Your task to perform on an android device: Clear all items from cart on bestbuy.com. Search for alienware area 51 on bestbuy.com, select the first entry, and add it to the cart. Image 0: 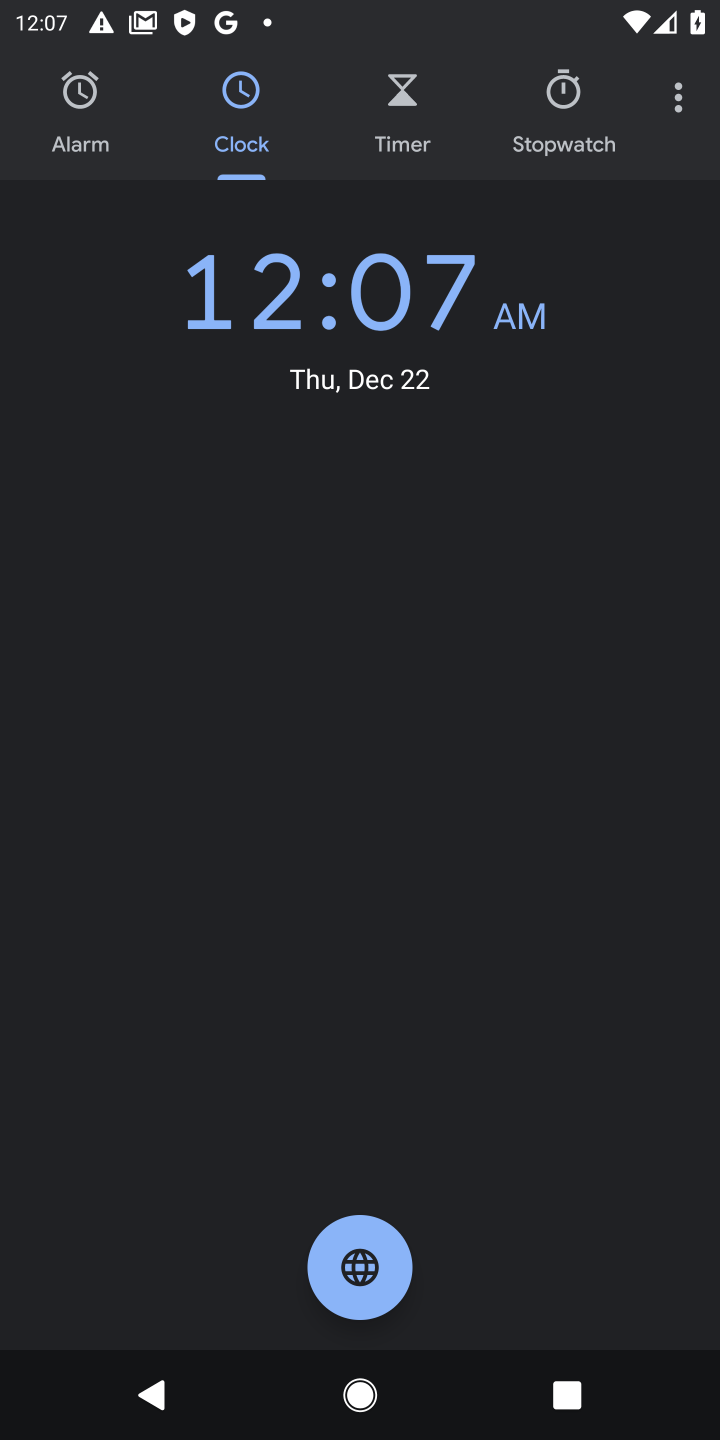
Step 0: press home button
Your task to perform on an android device: Clear all items from cart on bestbuy.com. Search for alienware area 51 on bestbuy.com, select the first entry, and add it to the cart. Image 1: 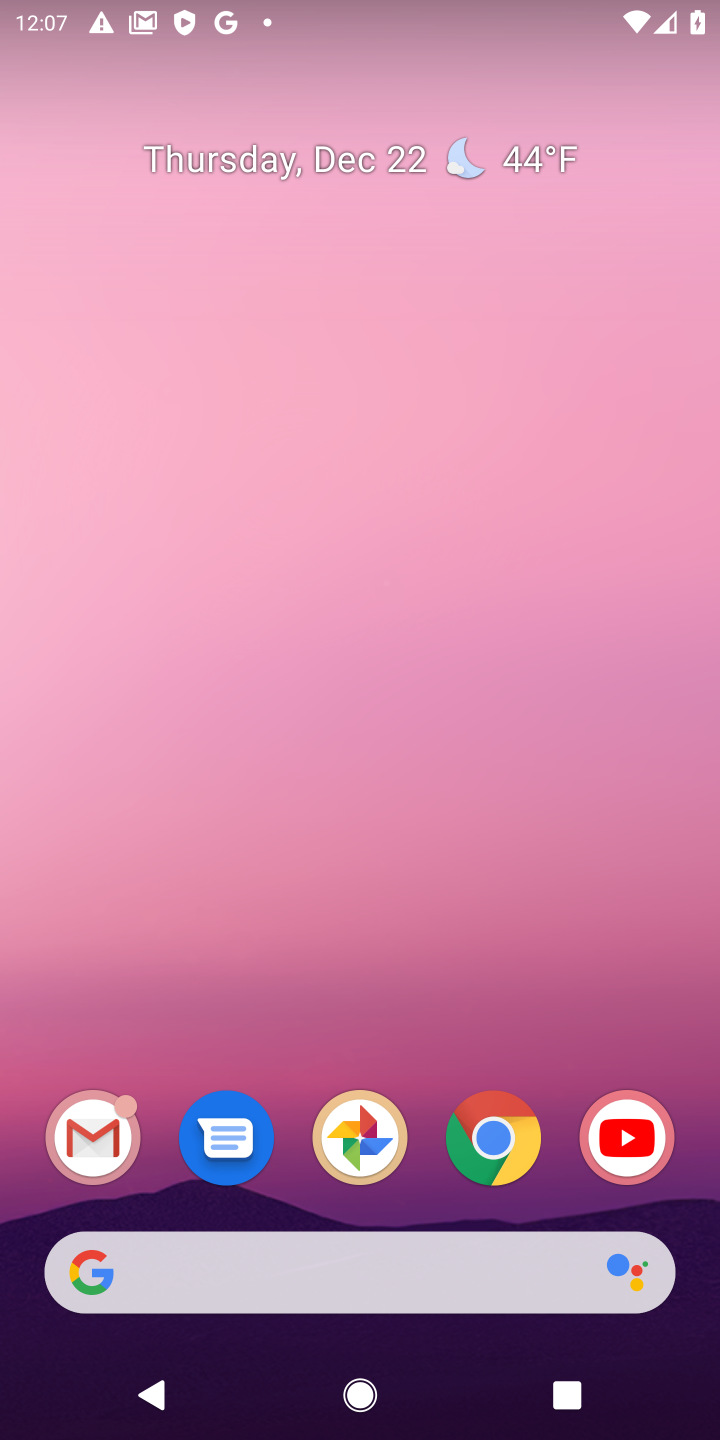
Step 1: click (503, 1141)
Your task to perform on an android device: Clear all items from cart on bestbuy.com. Search for alienware area 51 on bestbuy.com, select the first entry, and add it to the cart. Image 2: 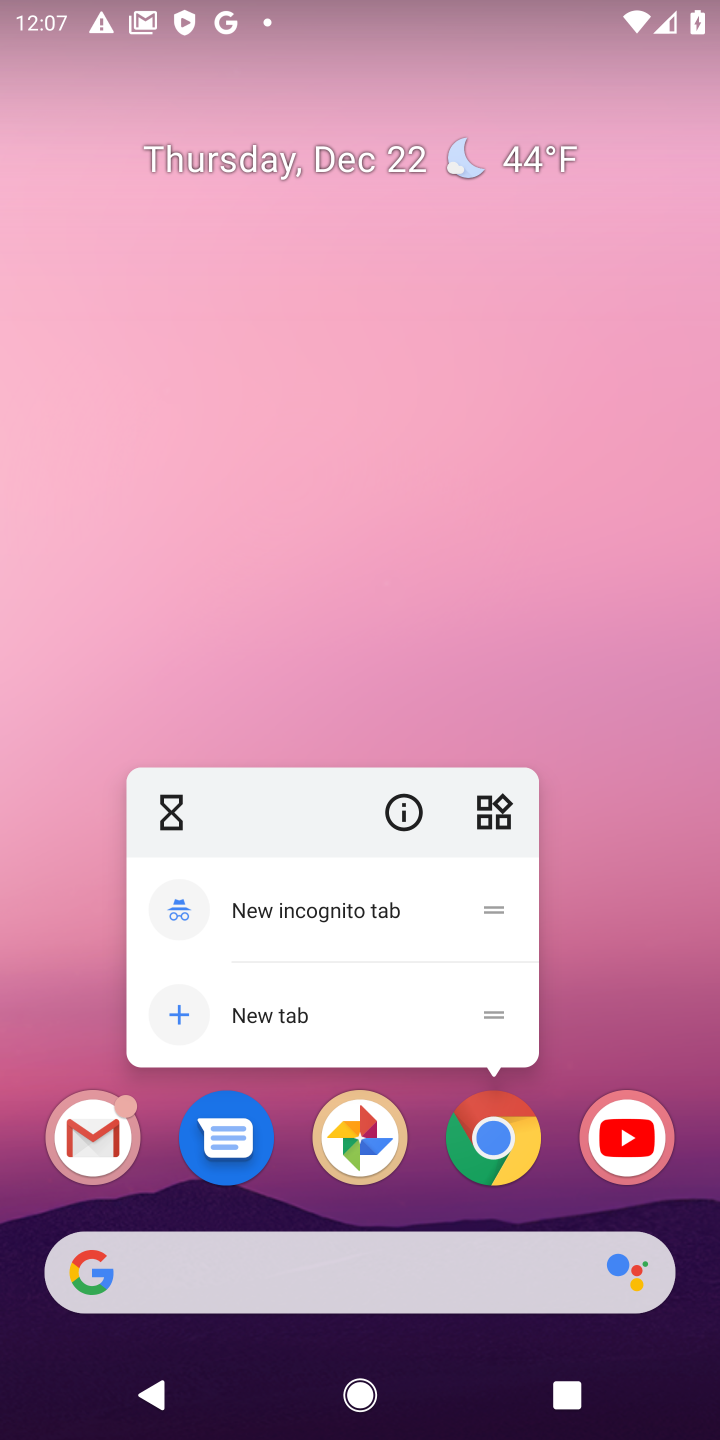
Step 2: click (503, 1141)
Your task to perform on an android device: Clear all items from cart on bestbuy.com. Search for alienware area 51 on bestbuy.com, select the first entry, and add it to the cart. Image 3: 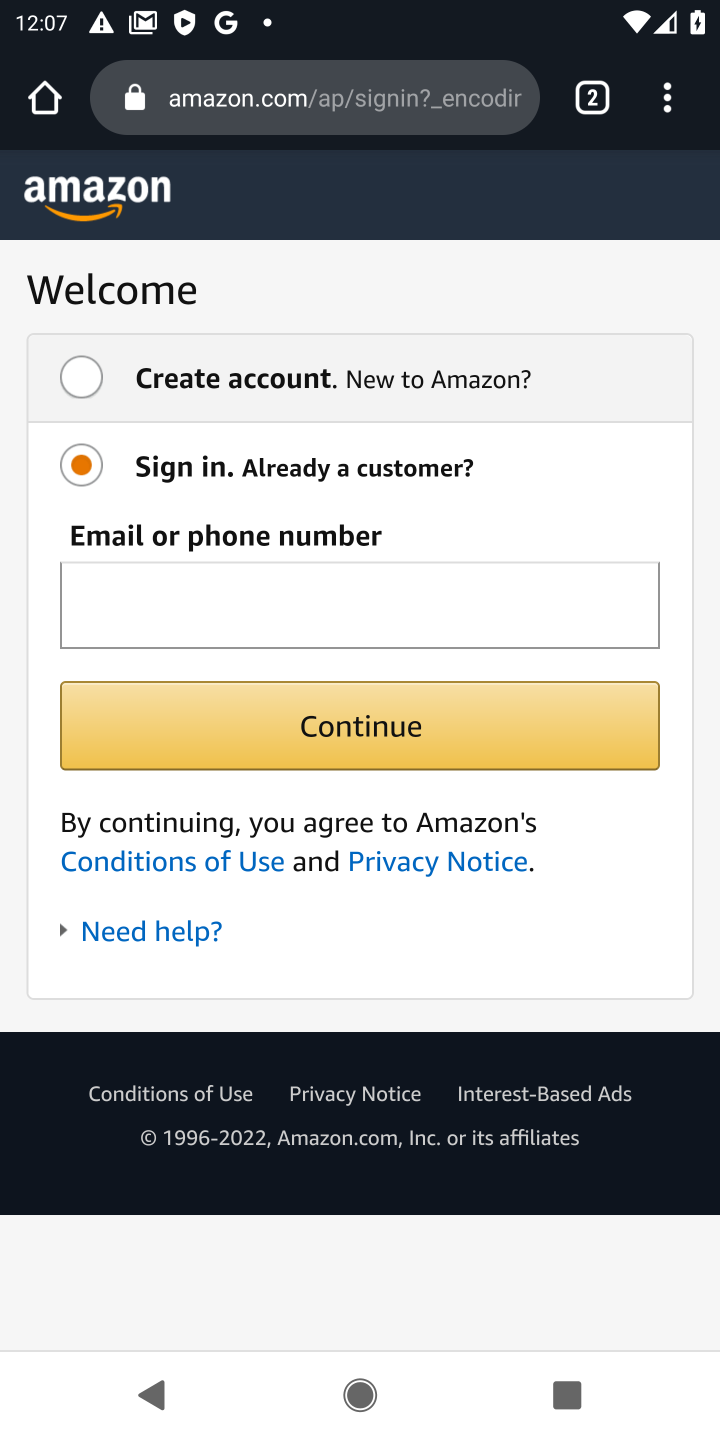
Step 3: click (243, 98)
Your task to perform on an android device: Clear all items from cart on bestbuy.com. Search for alienware area 51 on bestbuy.com, select the first entry, and add it to the cart. Image 4: 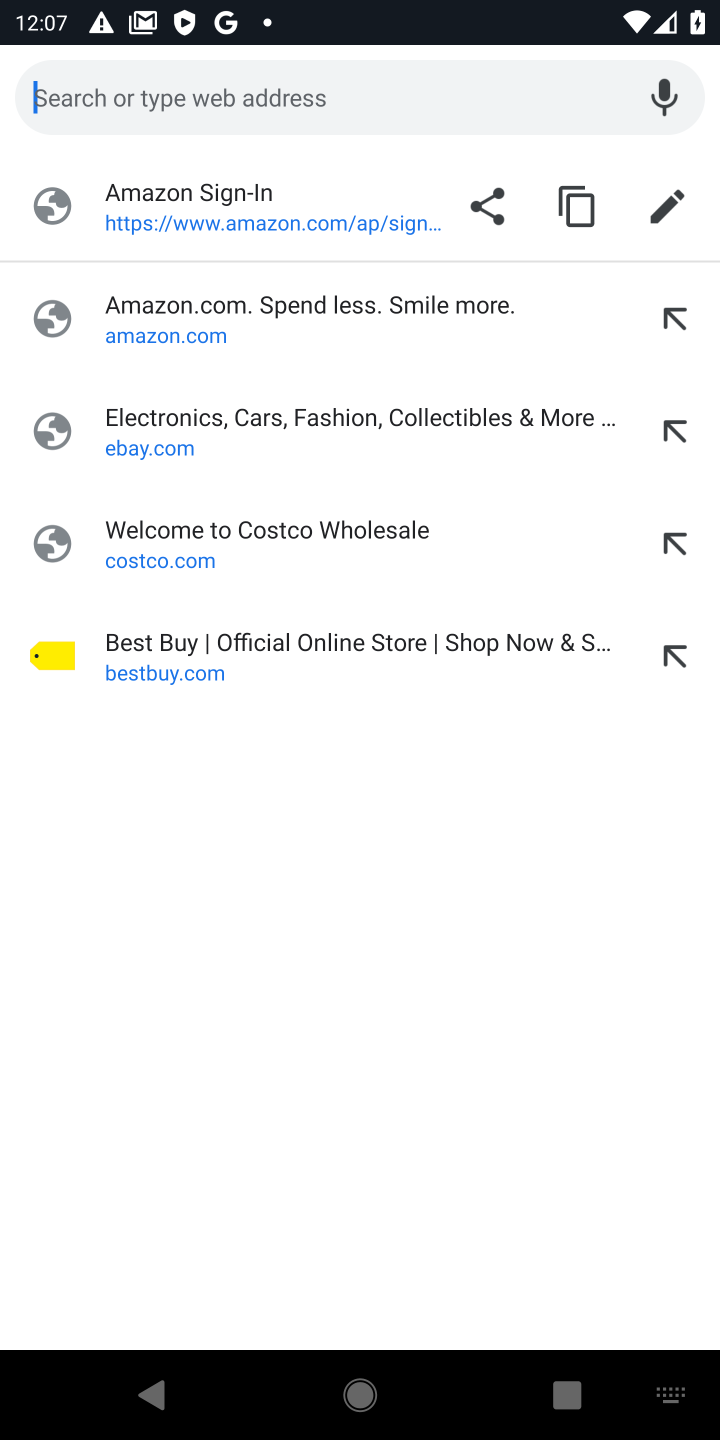
Step 4: click (158, 656)
Your task to perform on an android device: Clear all items from cart on bestbuy.com. Search for alienware area 51 on bestbuy.com, select the first entry, and add it to the cart. Image 5: 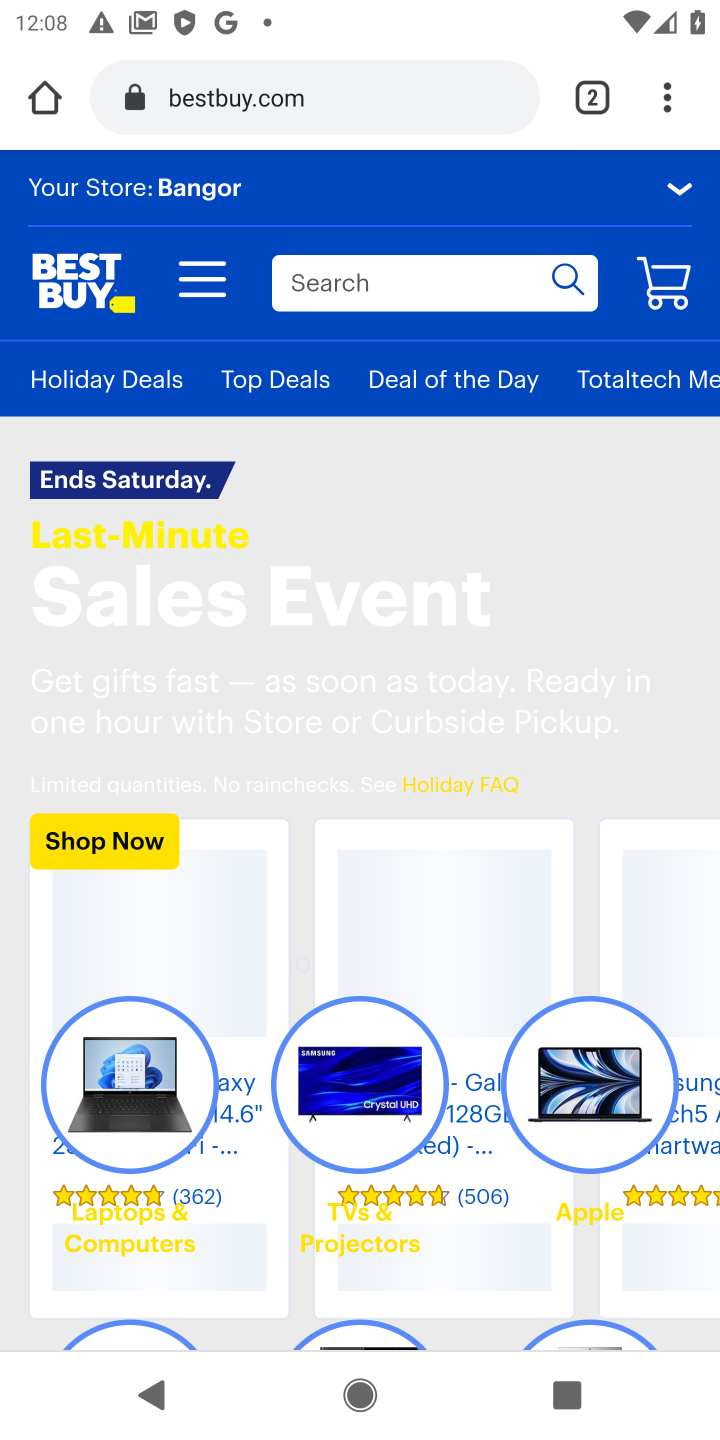
Step 5: click (663, 283)
Your task to perform on an android device: Clear all items from cart on bestbuy.com. Search for alienware area 51 on bestbuy.com, select the first entry, and add it to the cart. Image 6: 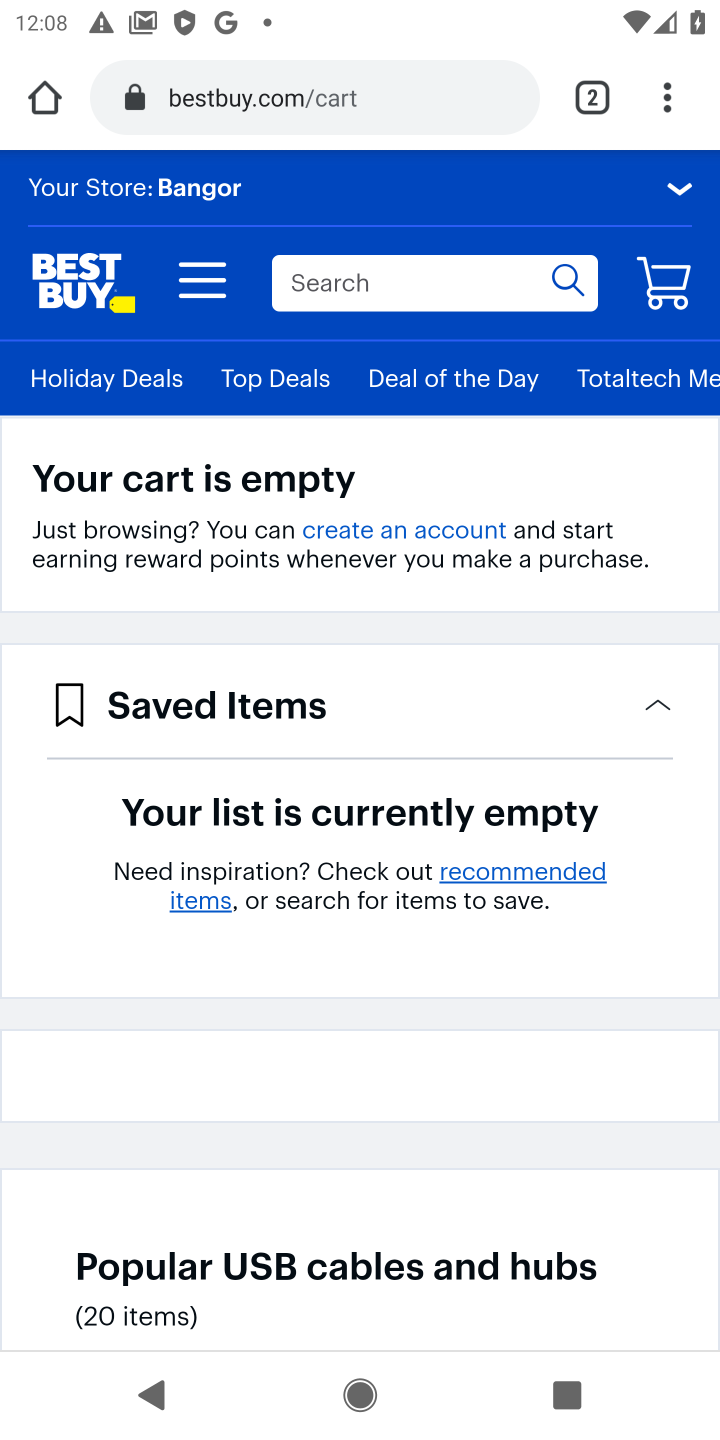
Step 6: click (333, 272)
Your task to perform on an android device: Clear all items from cart on bestbuy.com. Search for alienware area 51 on bestbuy.com, select the first entry, and add it to the cart. Image 7: 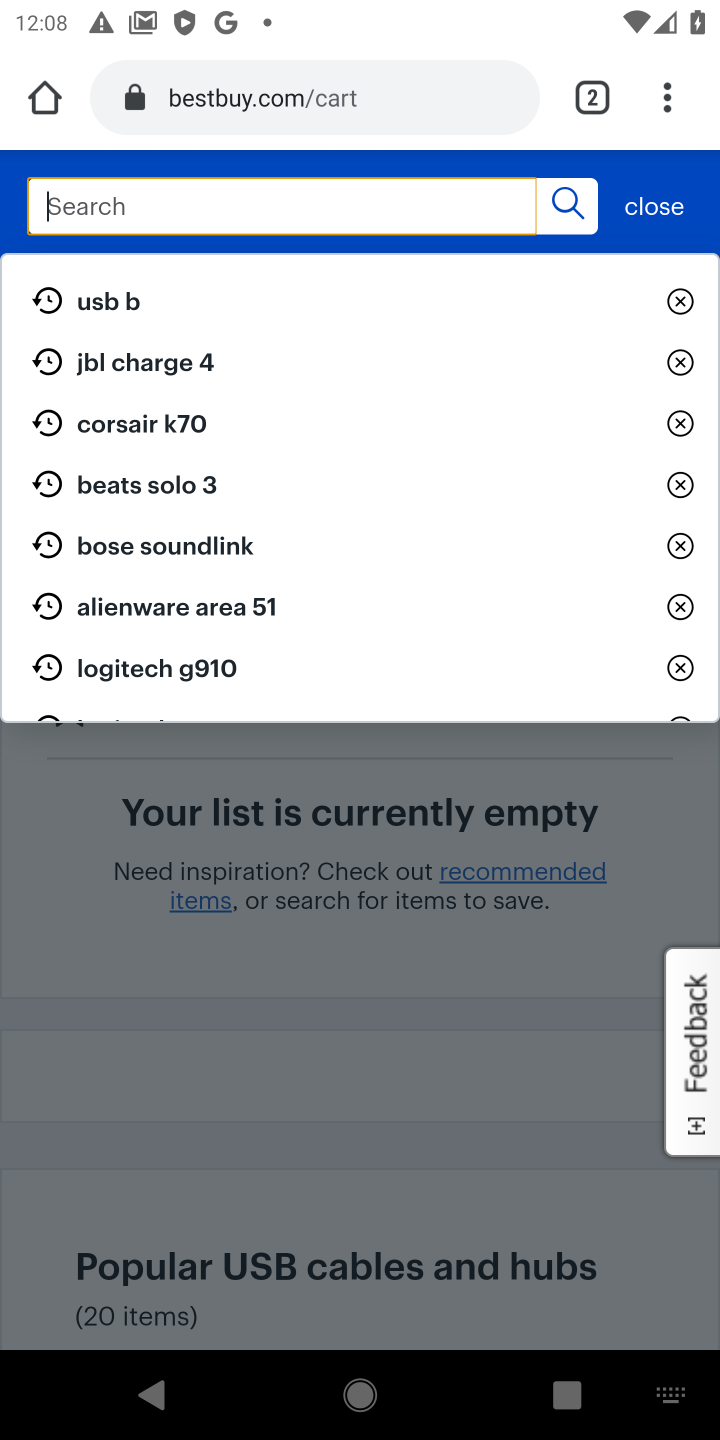
Step 7: type "alienware area 51"
Your task to perform on an android device: Clear all items from cart on bestbuy.com. Search for alienware area 51 on bestbuy.com, select the first entry, and add it to the cart. Image 8: 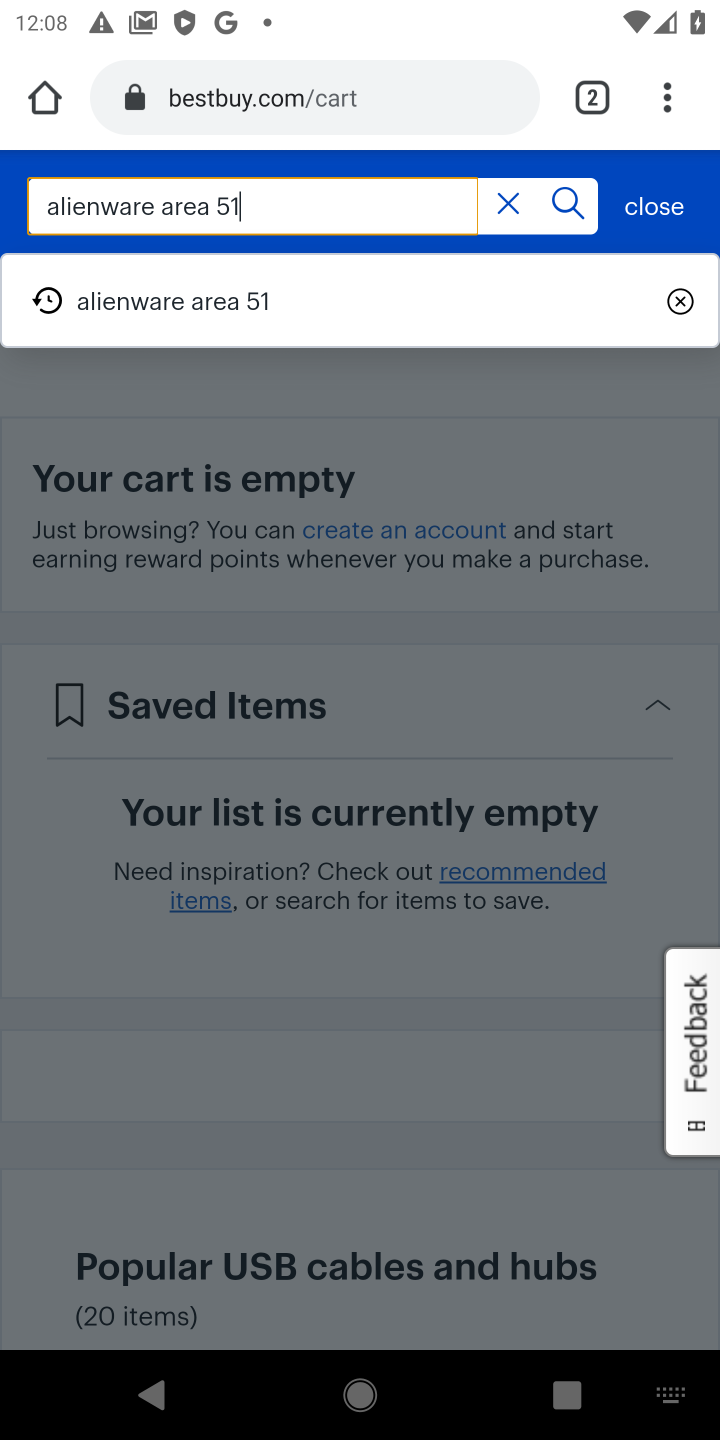
Step 8: click (127, 303)
Your task to perform on an android device: Clear all items from cart on bestbuy.com. Search for alienware area 51 on bestbuy.com, select the first entry, and add it to the cart. Image 9: 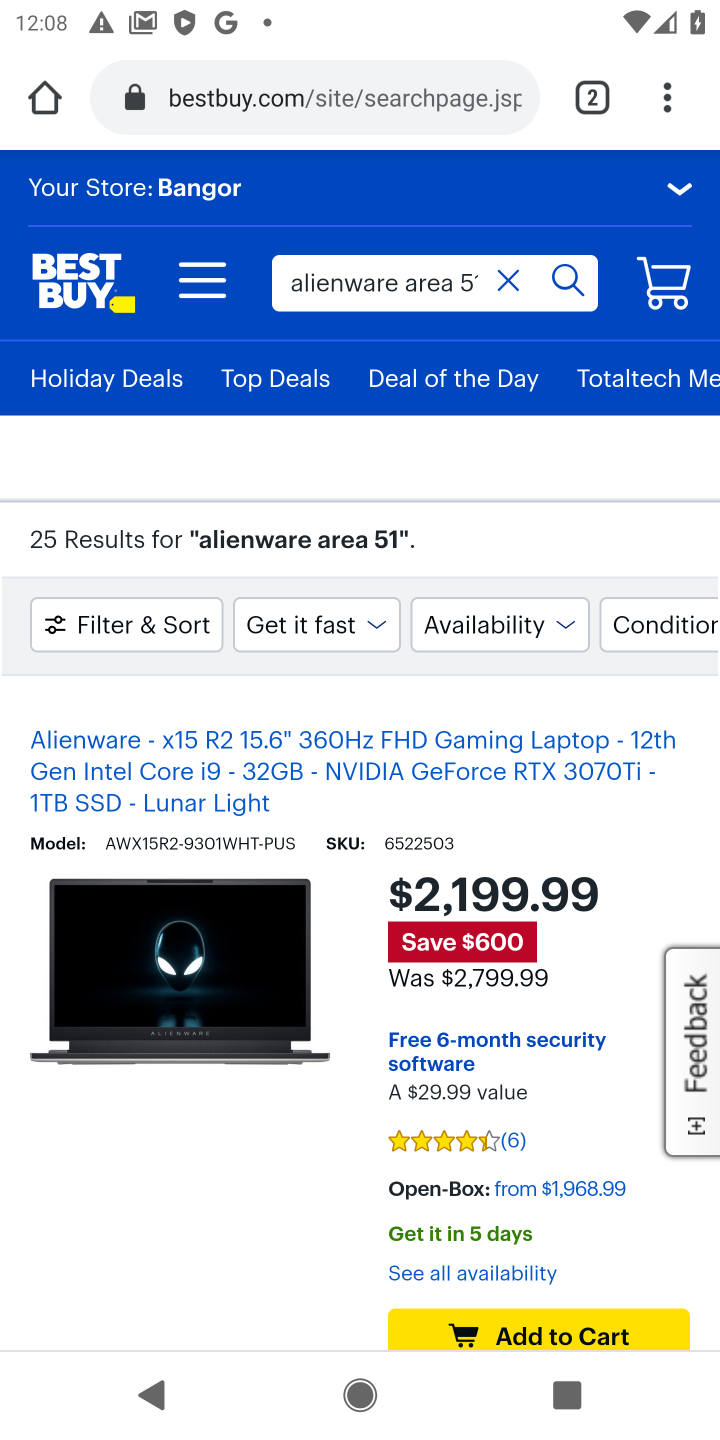
Step 9: task complete